Your task to perform on an android device: open wifi settings Image 0: 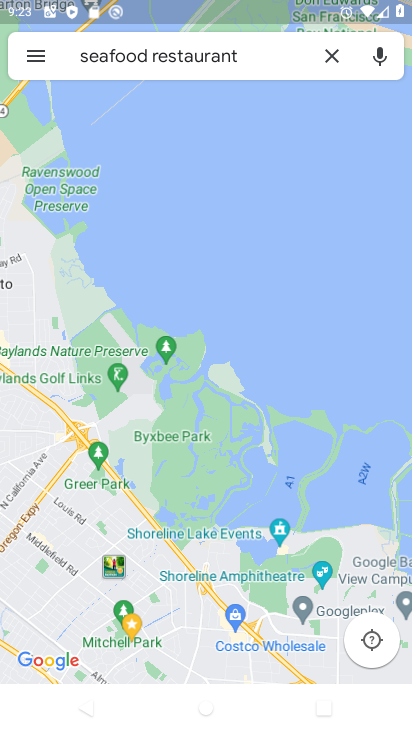
Step 0: press home button
Your task to perform on an android device: open wifi settings Image 1: 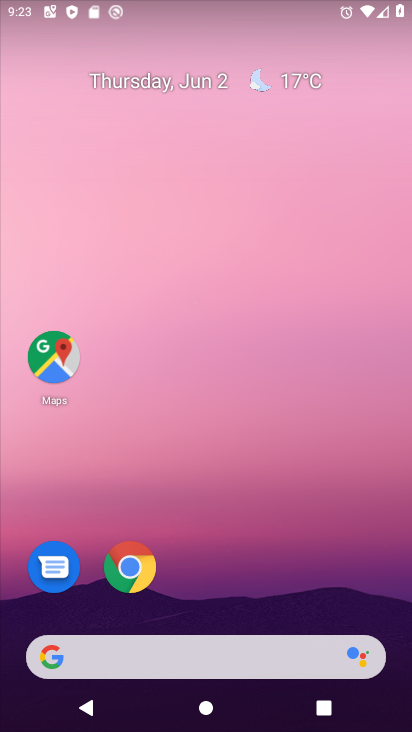
Step 1: drag from (197, 606) to (217, 212)
Your task to perform on an android device: open wifi settings Image 2: 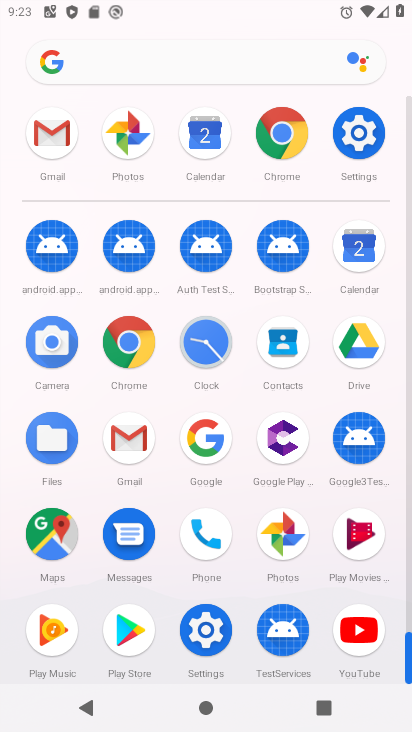
Step 2: click (358, 180)
Your task to perform on an android device: open wifi settings Image 3: 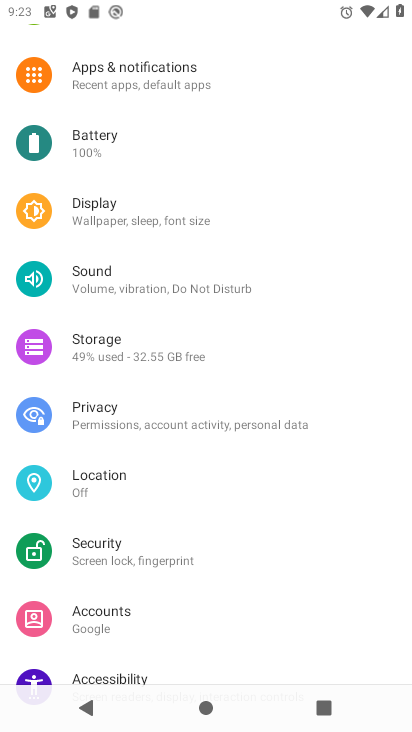
Step 3: drag from (192, 164) to (175, 561)
Your task to perform on an android device: open wifi settings Image 4: 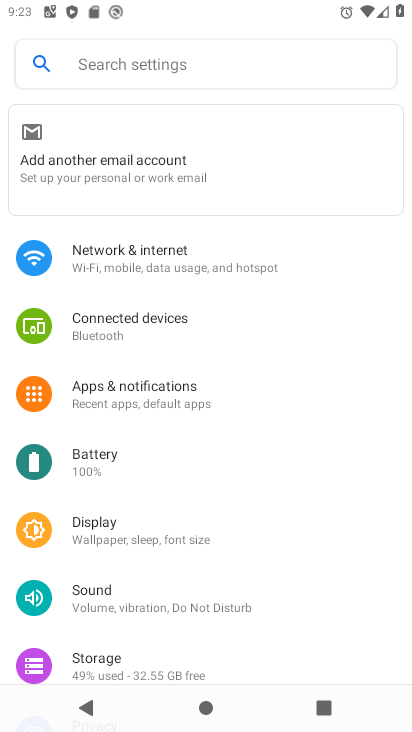
Step 4: click (171, 272)
Your task to perform on an android device: open wifi settings Image 5: 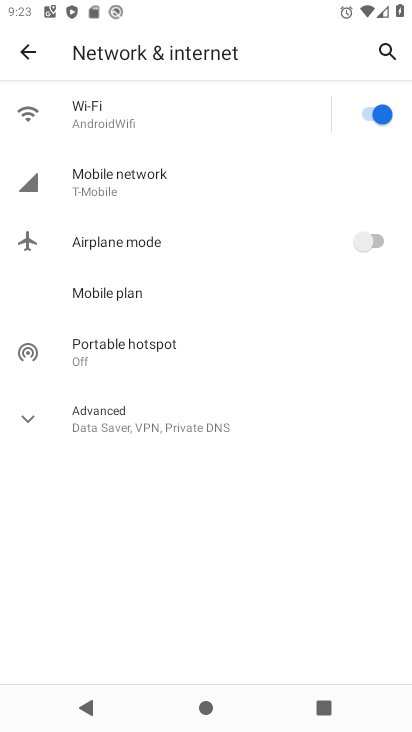
Step 5: click (104, 126)
Your task to perform on an android device: open wifi settings Image 6: 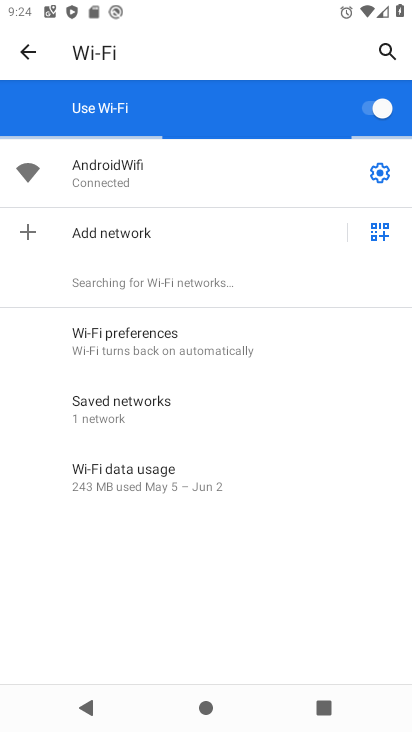
Step 6: task complete